Your task to perform on an android device: check the backup settings in the google photos Image 0: 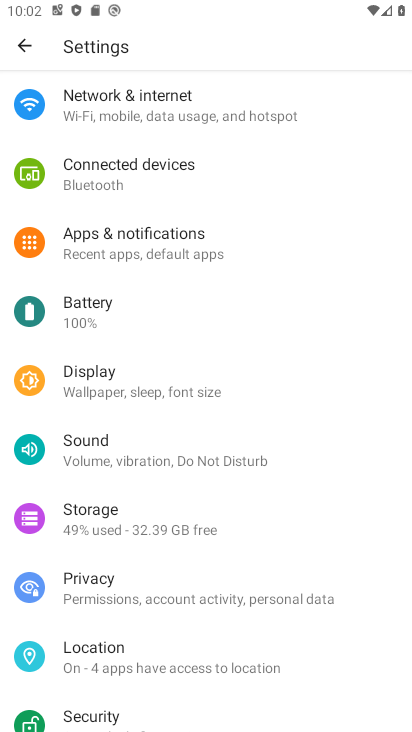
Step 0: press home button
Your task to perform on an android device: check the backup settings in the google photos Image 1: 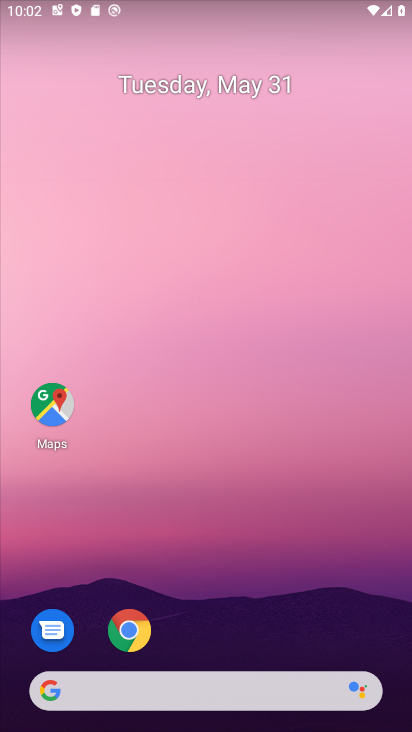
Step 1: drag from (226, 588) to (277, 190)
Your task to perform on an android device: check the backup settings in the google photos Image 2: 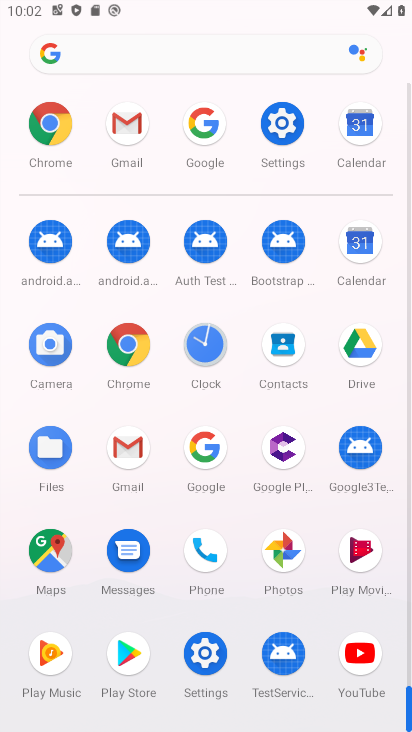
Step 2: click (284, 574)
Your task to perform on an android device: check the backup settings in the google photos Image 3: 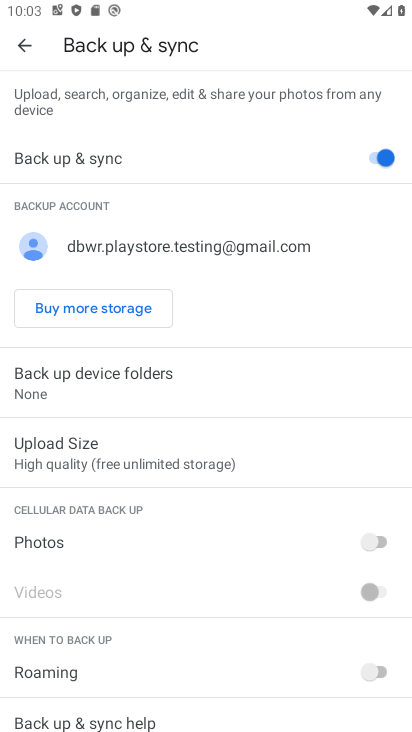
Step 3: task complete